Your task to perform on an android device: toggle notifications settings in the gmail app Image 0: 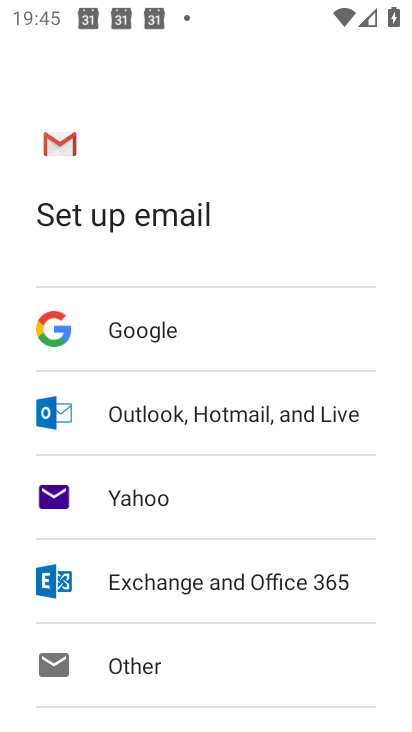
Step 0: press home button
Your task to perform on an android device: toggle notifications settings in the gmail app Image 1: 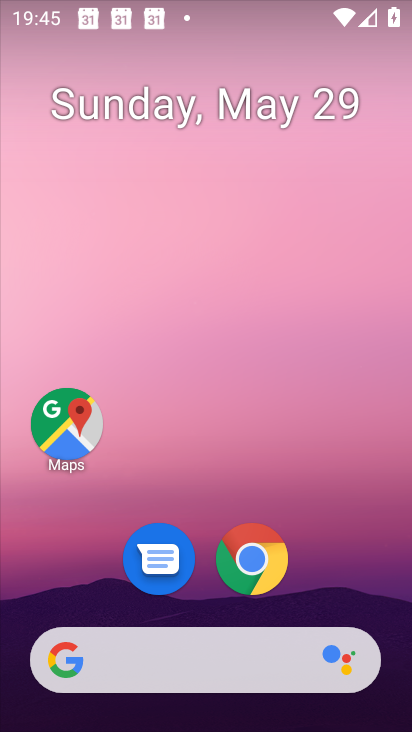
Step 1: drag from (365, 580) to (347, 161)
Your task to perform on an android device: toggle notifications settings in the gmail app Image 2: 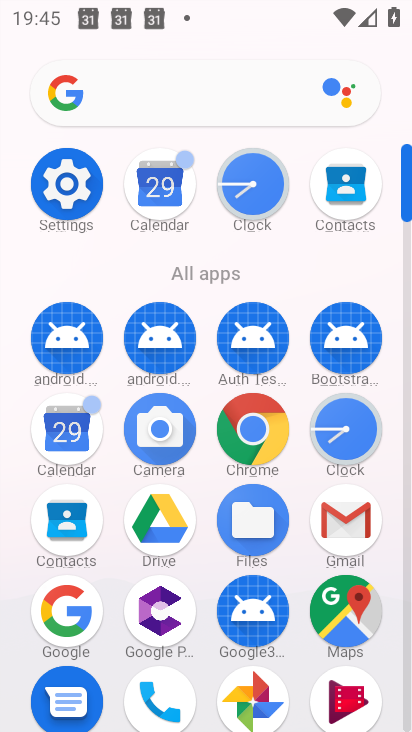
Step 2: click (350, 538)
Your task to perform on an android device: toggle notifications settings in the gmail app Image 3: 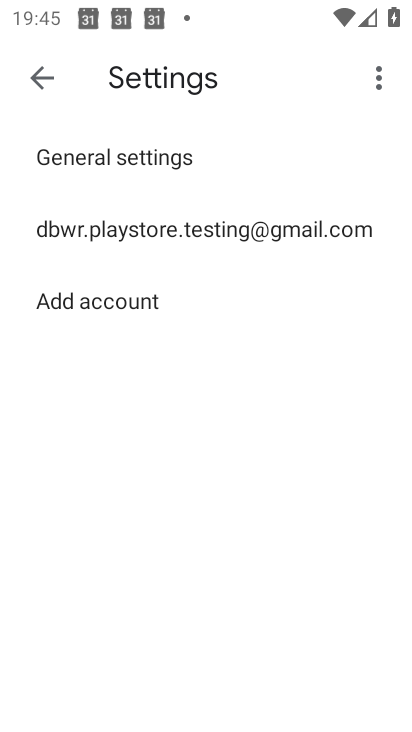
Step 3: click (251, 219)
Your task to perform on an android device: toggle notifications settings in the gmail app Image 4: 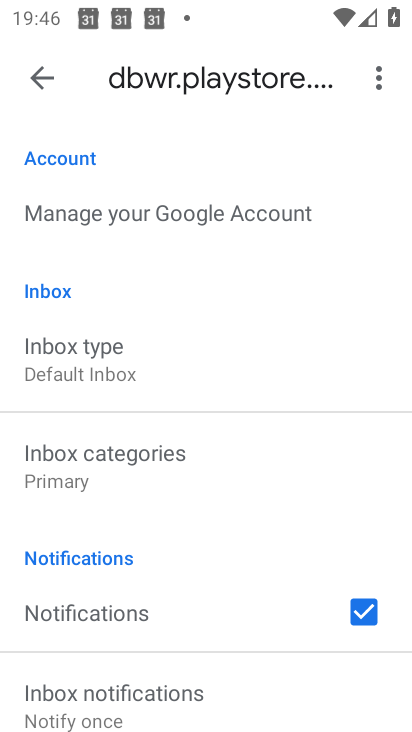
Step 4: drag from (273, 514) to (287, 421)
Your task to perform on an android device: toggle notifications settings in the gmail app Image 5: 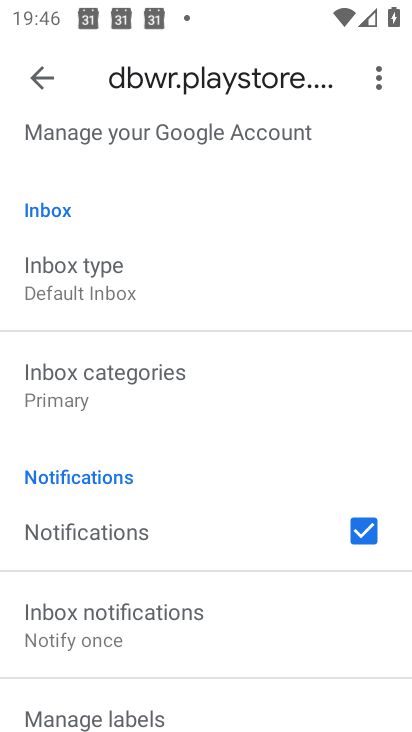
Step 5: drag from (277, 576) to (283, 472)
Your task to perform on an android device: toggle notifications settings in the gmail app Image 6: 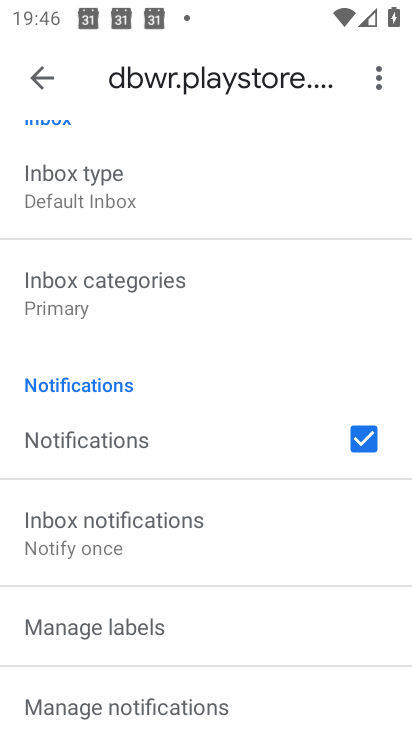
Step 6: drag from (269, 542) to (277, 484)
Your task to perform on an android device: toggle notifications settings in the gmail app Image 7: 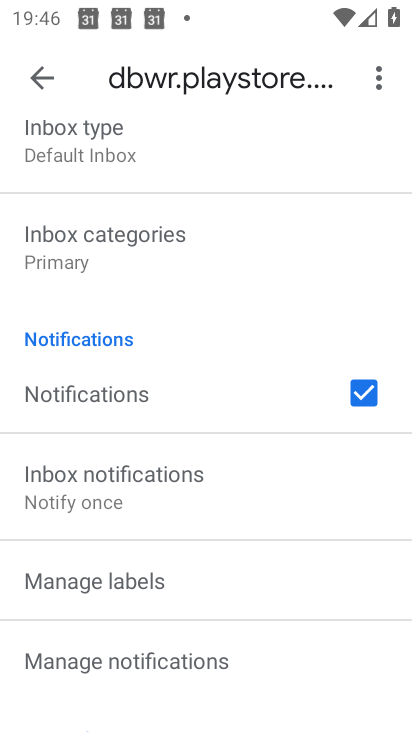
Step 7: drag from (261, 537) to (279, 479)
Your task to perform on an android device: toggle notifications settings in the gmail app Image 8: 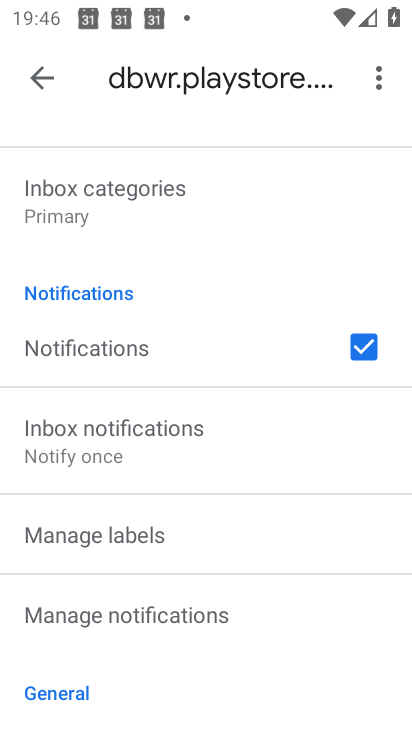
Step 8: drag from (277, 515) to (300, 423)
Your task to perform on an android device: toggle notifications settings in the gmail app Image 9: 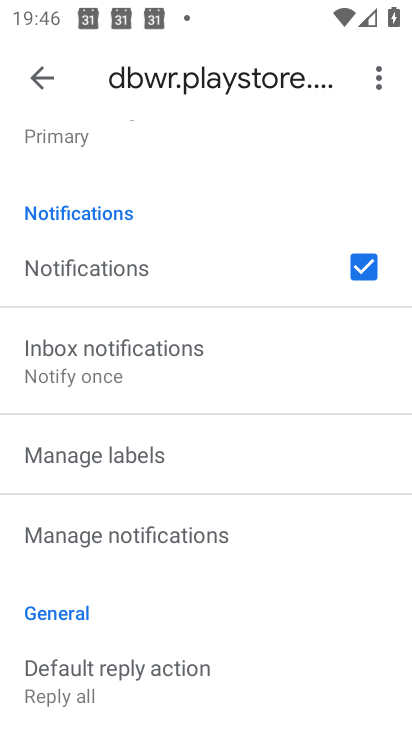
Step 9: drag from (289, 549) to (307, 434)
Your task to perform on an android device: toggle notifications settings in the gmail app Image 10: 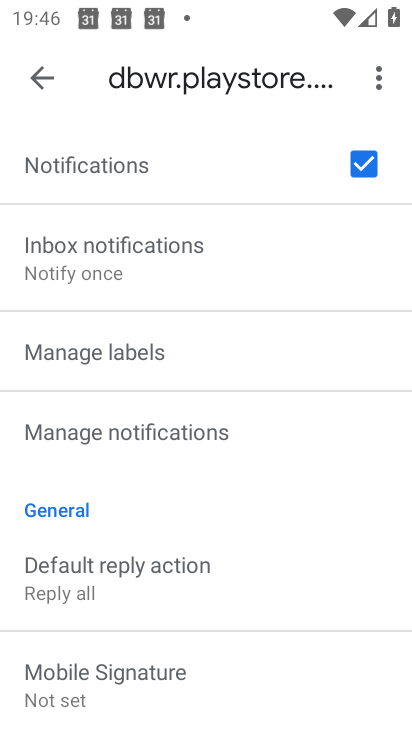
Step 10: drag from (300, 555) to (316, 457)
Your task to perform on an android device: toggle notifications settings in the gmail app Image 11: 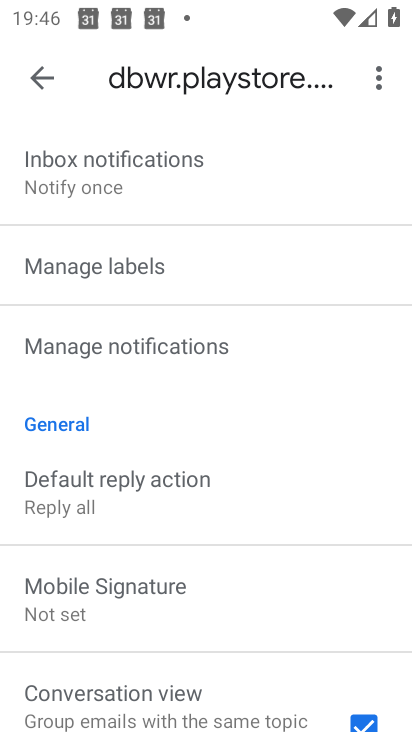
Step 11: drag from (325, 366) to (321, 413)
Your task to perform on an android device: toggle notifications settings in the gmail app Image 12: 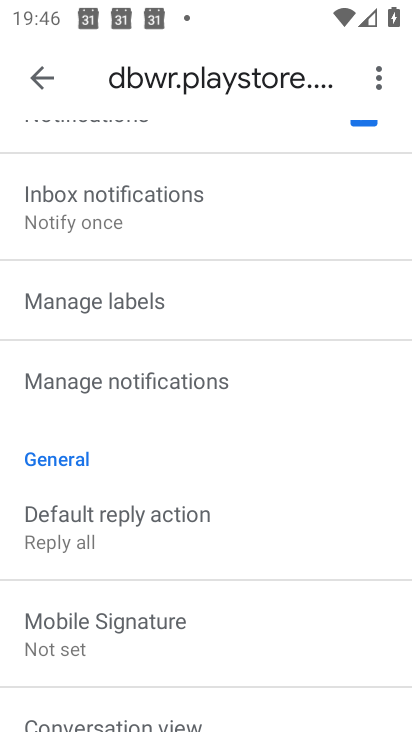
Step 12: click (327, 385)
Your task to perform on an android device: toggle notifications settings in the gmail app Image 13: 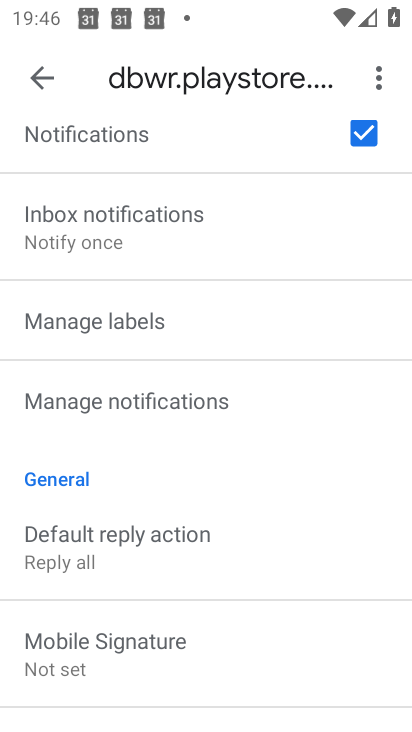
Step 13: drag from (335, 373) to (330, 431)
Your task to perform on an android device: toggle notifications settings in the gmail app Image 14: 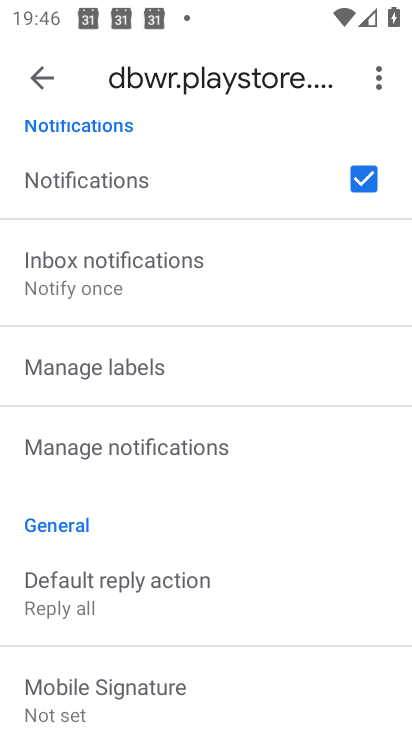
Step 14: drag from (333, 561) to (338, 411)
Your task to perform on an android device: toggle notifications settings in the gmail app Image 15: 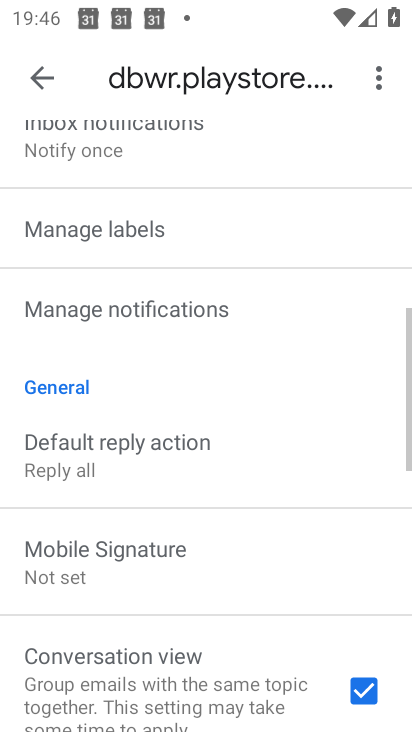
Step 15: drag from (344, 348) to (343, 443)
Your task to perform on an android device: toggle notifications settings in the gmail app Image 16: 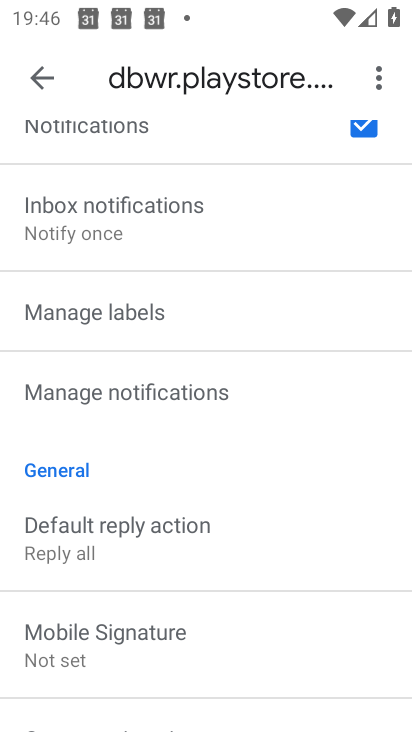
Step 16: drag from (354, 347) to (351, 430)
Your task to perform on an android device: toggle notifications settings in the gmail app Image 17: 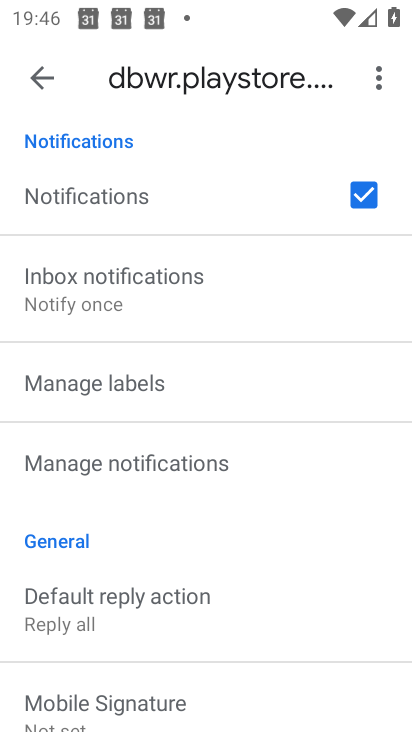
Step 17: drag from (361, 350) to (370, 407)
Your task to perform on an android device: toggle notifications settings in the gmail app Image 18: 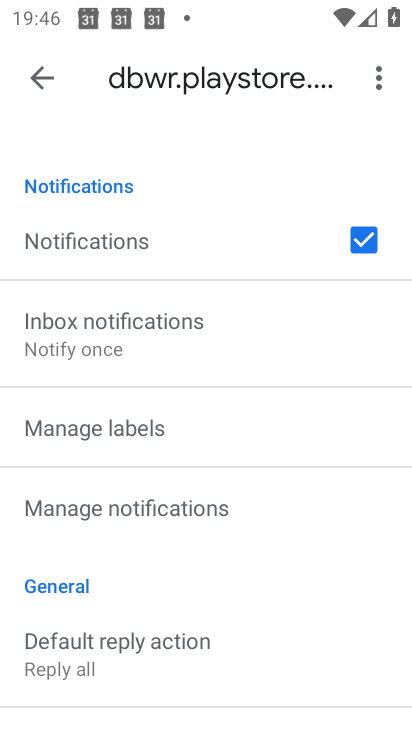
Step 18: click (376, 377)
Your task to perform on an android device: toggle notifications settings in the gmail app Image 19: 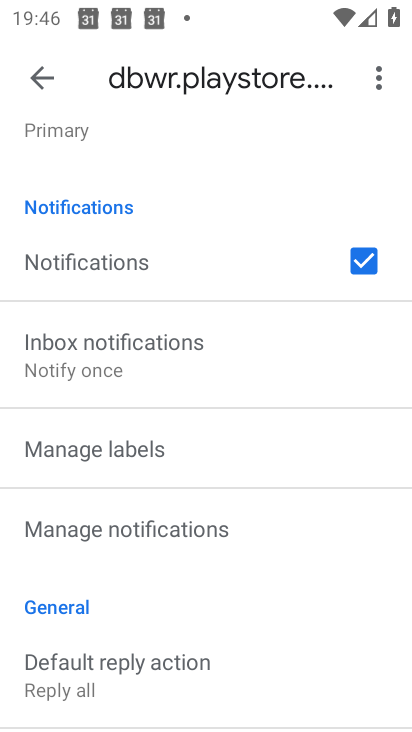
Step 19: drag from (391, 382) to (376, 485)
Your task to perform on an android device: toggle notifications settings in the gmail app Image 20: 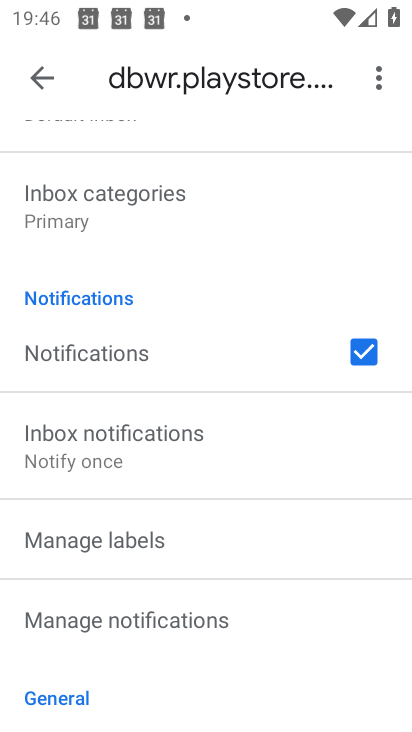
Step 20: drag from (313, 305) to (281, 473)
Your task to perform on an android device: toggle notifications settings in the gmail app Image 21: 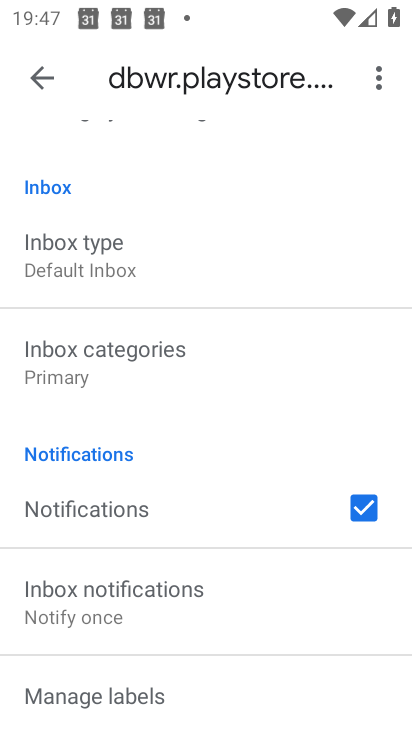
Step 21: drag from (251, 556) to (270, 420)
Your task to perform on an android device: toggle notifications settings in the gmail app Image 22: 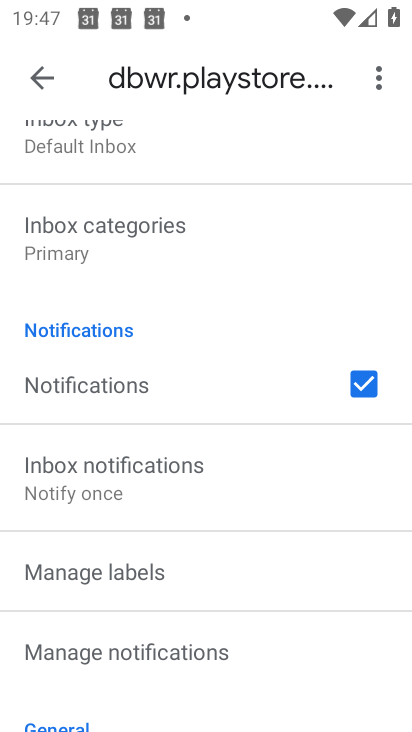
Step 22: drag from (261, 563) to (269, 421)
Your task to perform on an android device: toggle notifications settings in the gmail app Image 23: 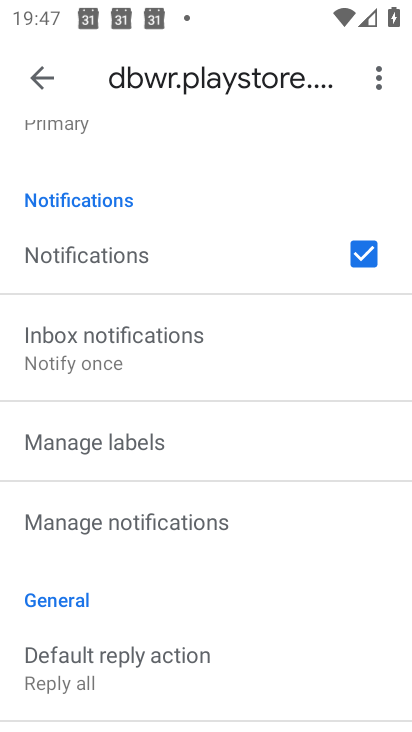
Step 23: click (268, 545)
Your task to perform on an android device: toggle notifications settings in the gmail app Image 24: 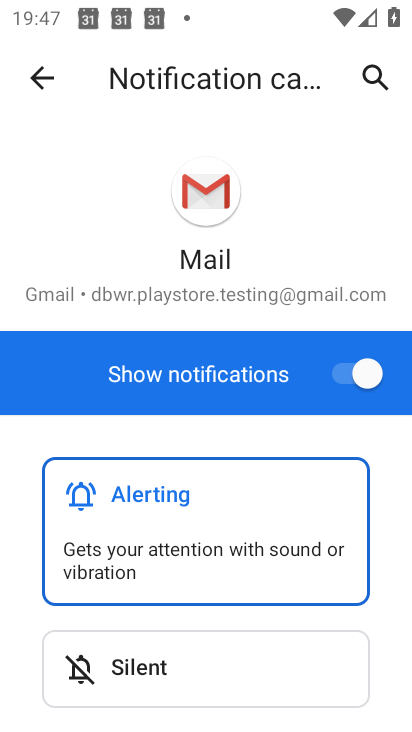
Step 24: click (354, 375)
Your task to perform on an android device: toggle notifications settings in the gmail app Image 25: 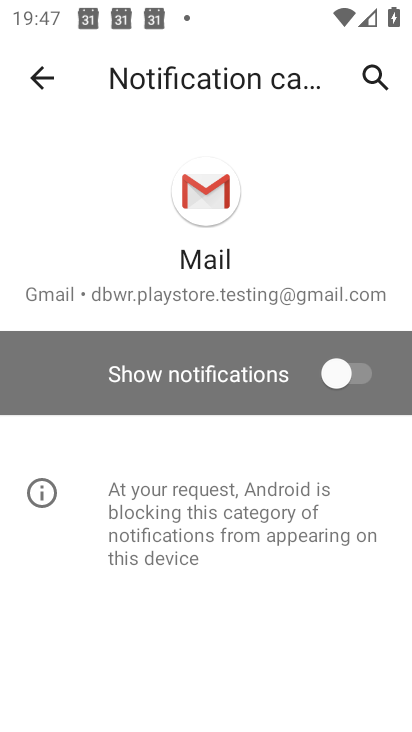
Step 25: task complete